Your task to perform on an android device: View the shopping cart on ebay. Search for "bose quietcomfort 35" on ebay, select the first entry, add it to the cart, then select checkout. Image 0: 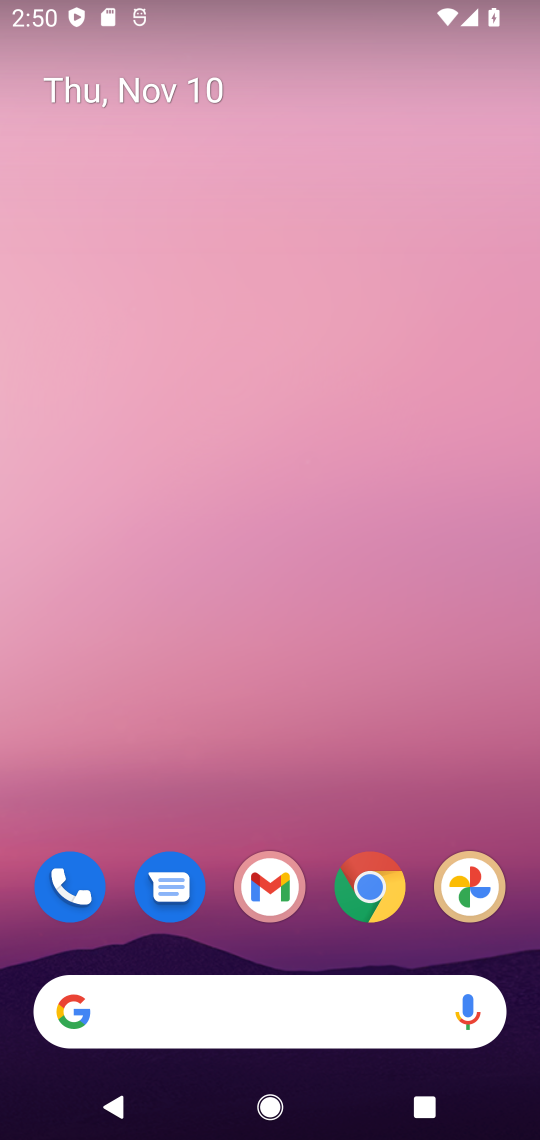
Step 0: drag from (329, 858) to (354, 39)
Your task to perform on an android device: View the shopping cart on ebay. Search for "bose quietcomfort 35" on ebay, select the first entry, add it to the cart, then select checkout. Image 1: 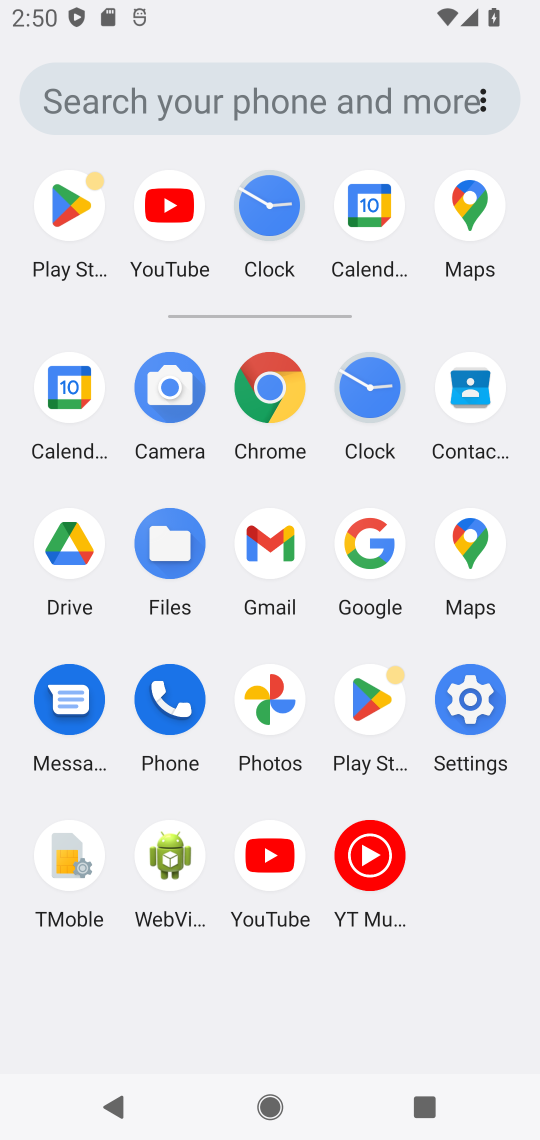
Step 1: click (275, 398)
Your task to perform on an android device: View the shopping cart on ebay. Search for "bose quietcomfort 35" on ebay, select the first entry, add it to the cart, then select checkout. Image 2: 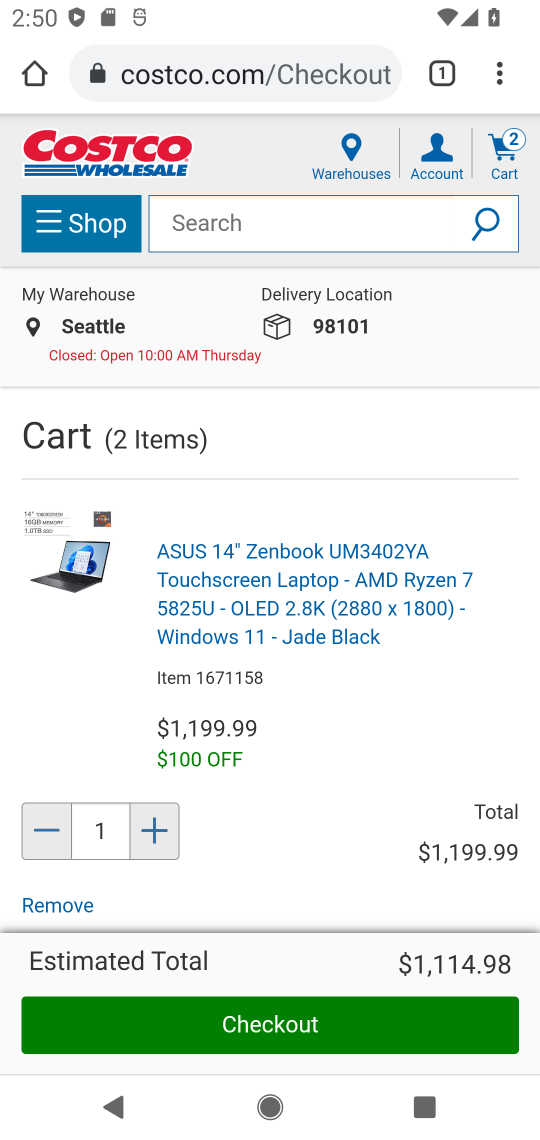
Step 2: click (316, 68)
Your task to perform on an android device: View the shopping cart on ebay. Search for "bose quietcomfort 35" on ebay, select the first entry, add it to the cart, then select checkout. Image 3: 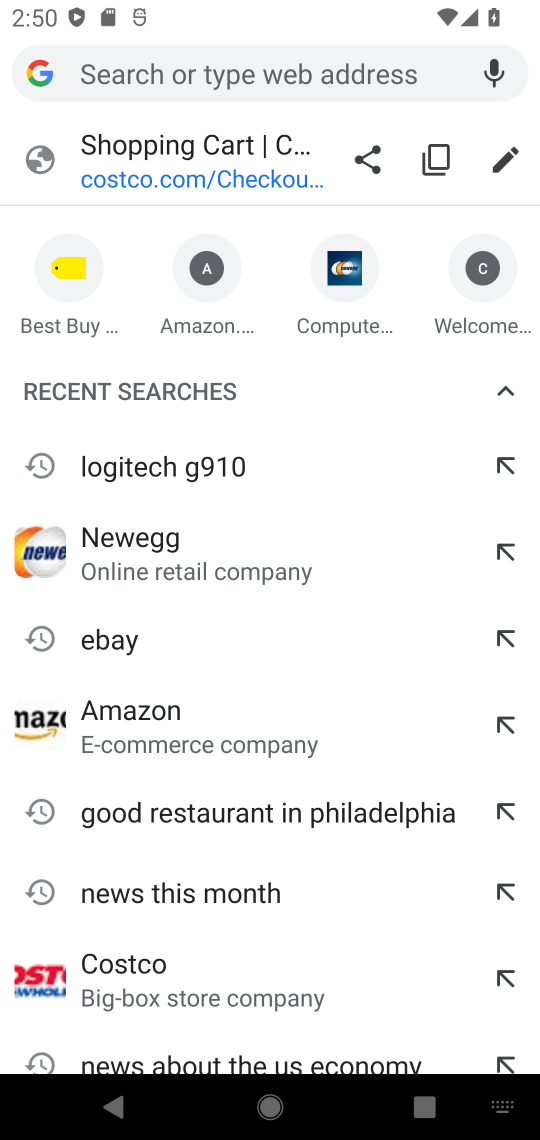
Step 3: type "ebay.com"
Your task to perform on an android device: View the shopping cart on ebay. Search for "bose quietcomfort 35" on ebay, select the first entry, add it to the cart, then select checkout. Image 4: 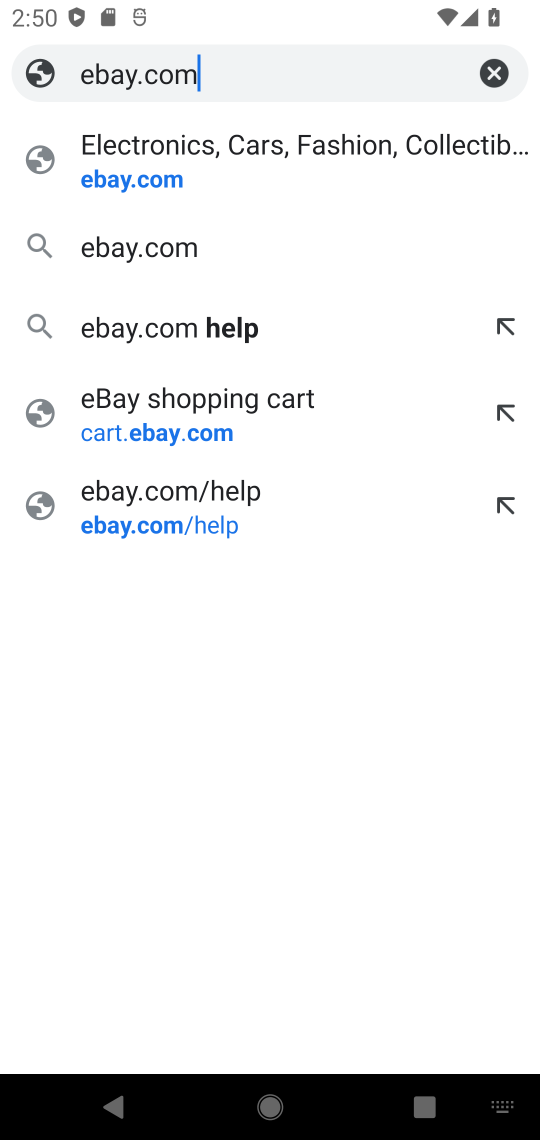
Step 4: press enter
Your task to perform on an android device: View the shopping cart on ebay. Search for "bose quietcomfort 35" on ebay, select the first entry, add it to the cart, then select checkout. Image 5: 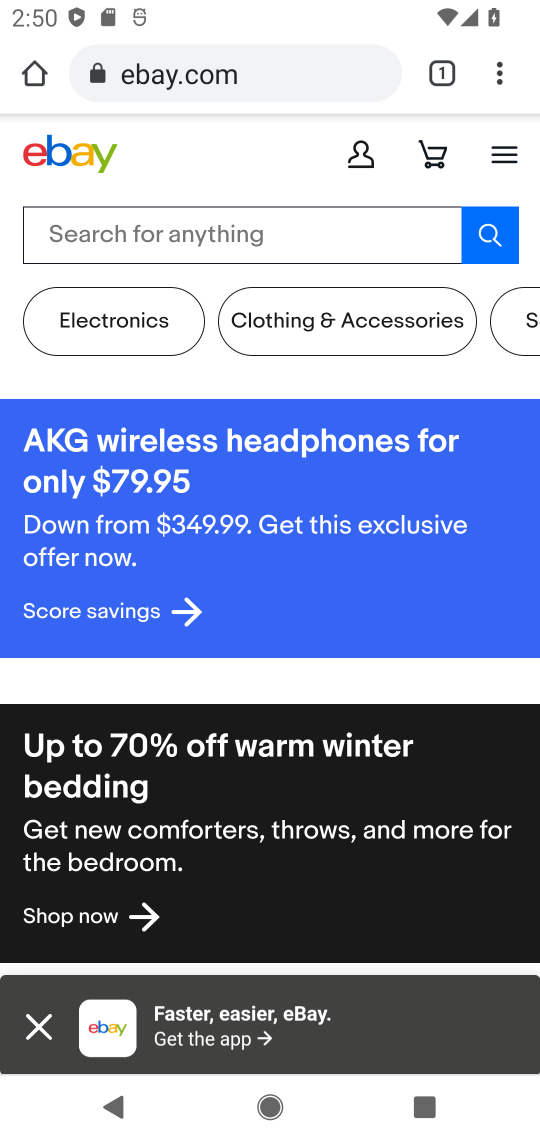
Step 5: click (423, 149)
Your task to perform on an android device: View the shopping cart on ebay. Search for "bose quietcomfort 35" on ebay, select the first entry, add it to the cart, then select checkout. Image 6: 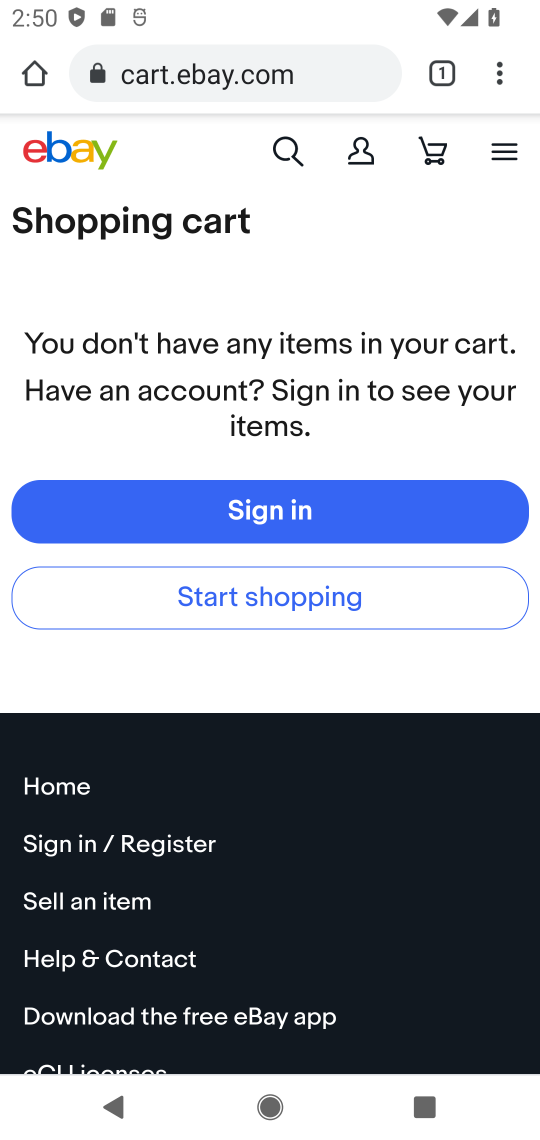
Step 6: click (270, 131)
Your task to perform on an android device: View the shopping cart on ebay. Search for "bose quietcomfort 35" on ebay, select the first entry, add it to the cart, then select checkout. Image 7: 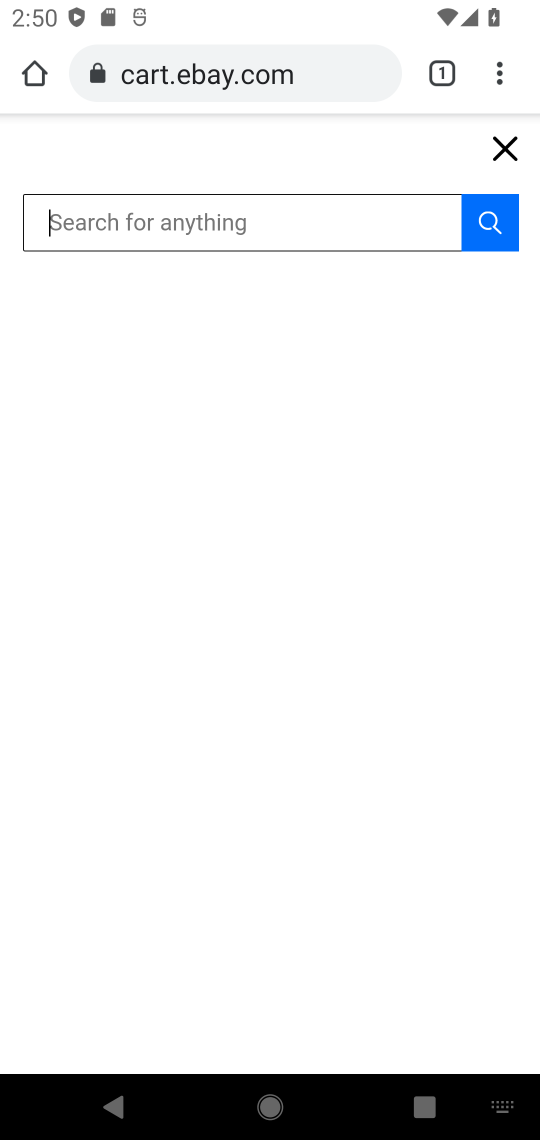
Step 7: type "bose quietcomfort 35"
Your task to perform on an android device: View the shopping cart on ebay. Search for "bose quietcomfort 35" on ebay, select the first entry, add it to the cart, then select checkout. Image 8: 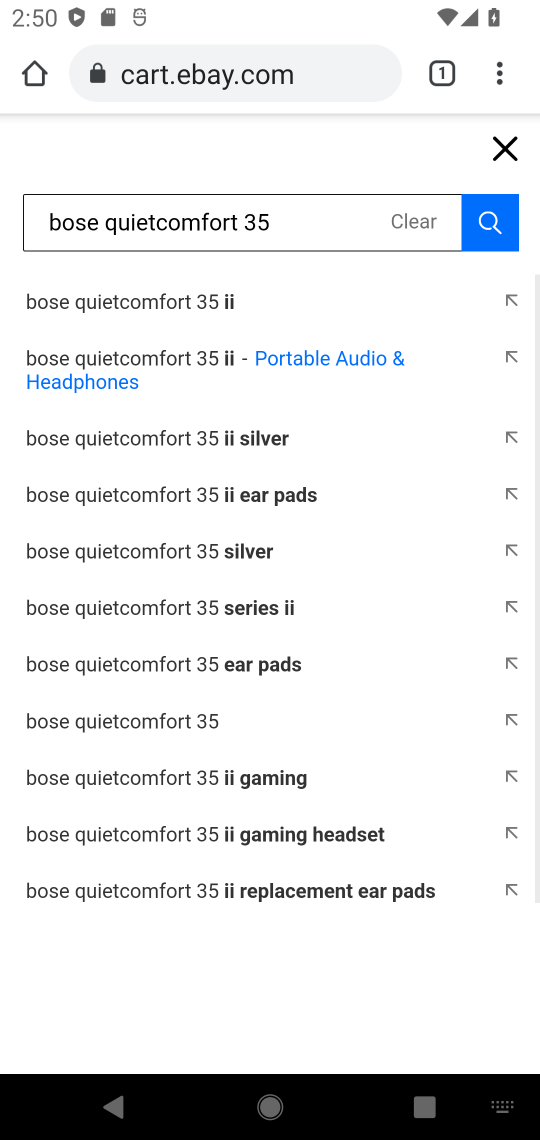
Step 8: press enter
Your task to perform on an android device: View the shopping cart on ebay. Search for "bose quietcomfort 35" on ebay, select the first entry, add it to the cart, then select checkout. Image 9: 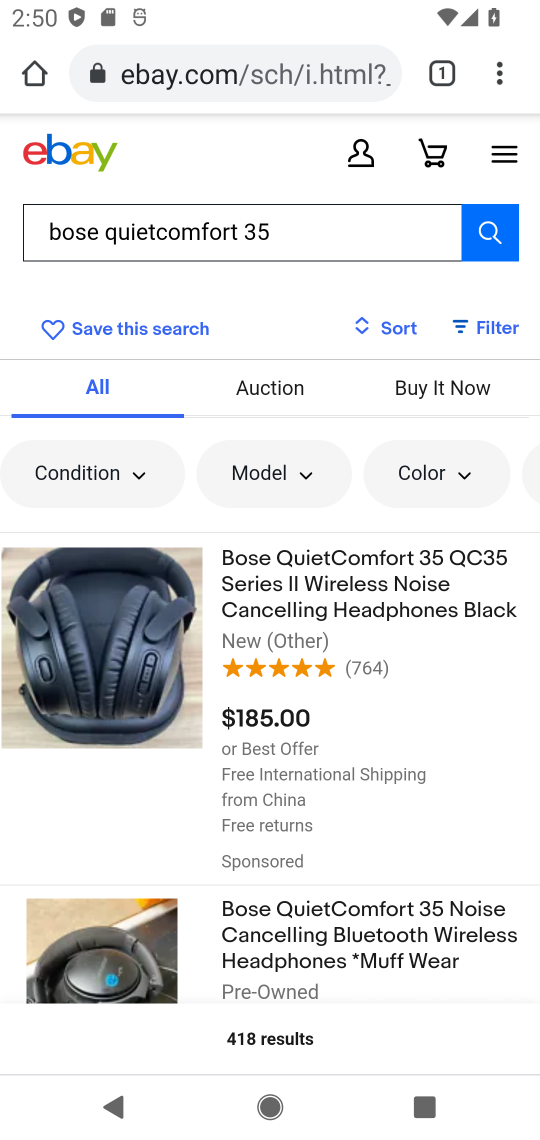
Step 9: click (262, 603)
Your task to perform on an android device: View the shopping cart on ebay. Search for "bose quietcomfort 35" on ebay, select the first entry, add it to the cart, then select checkout. Image 10: 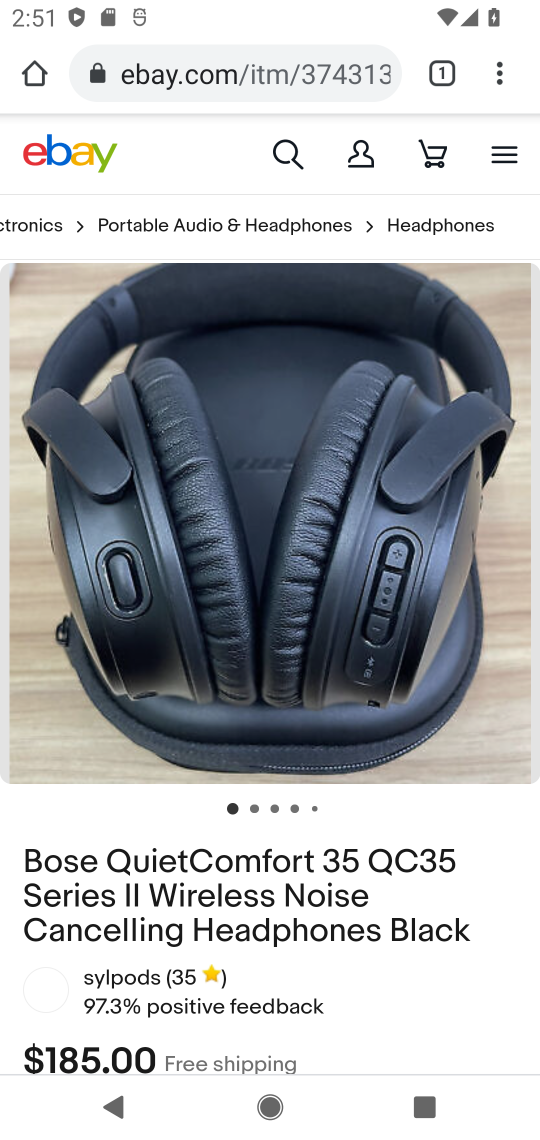
Step 10: drag from (307, 962) to (249, 161)
Your task to perform on an android device: View the shopping cart on ebay. Search for "bose quietcomfort 35" on ebay, select the first entry, add it to the cart, then select checkout. Image 11: 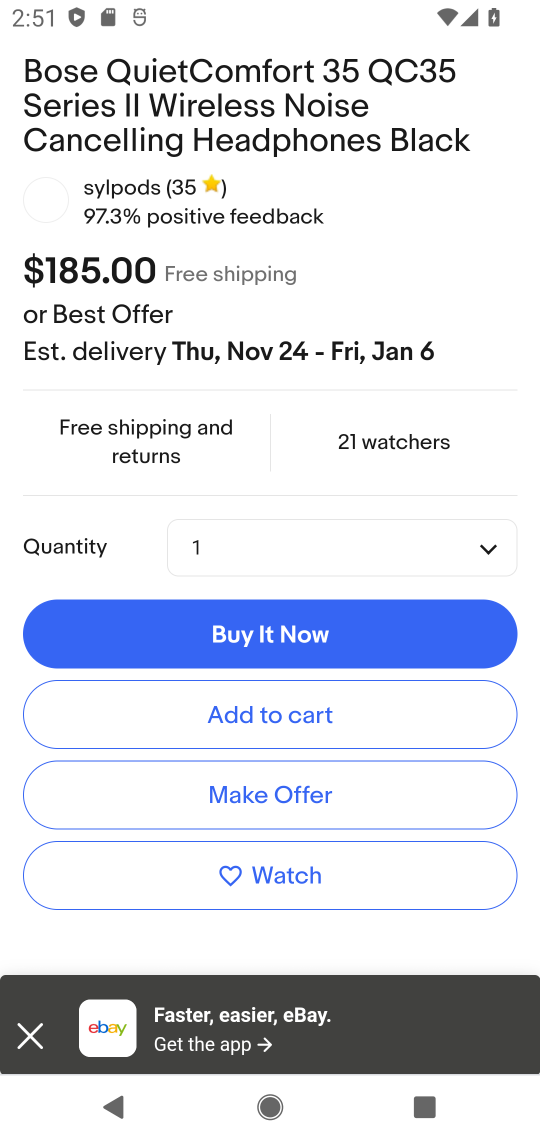
Step 11: click (229, 717)
Your task to perform on an android device: View the shopping cart on ebay. Search for "bose quietcomfort 35" on ebay, select the first entry, add it to the cart, then select checkout. Image 12: 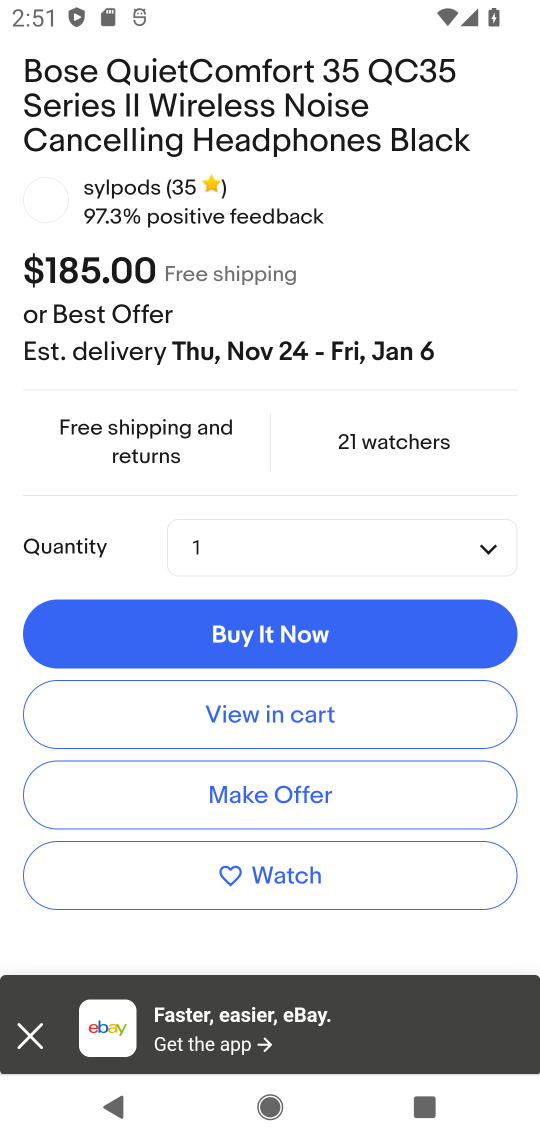
Step 12: click (229, 717)
Your task to perform on an android device: View the shopping cart on ebay. Search for "bose quietcomfort 35" on ebay, select the first entry, add it to the cart, then select checkout. Image 13: 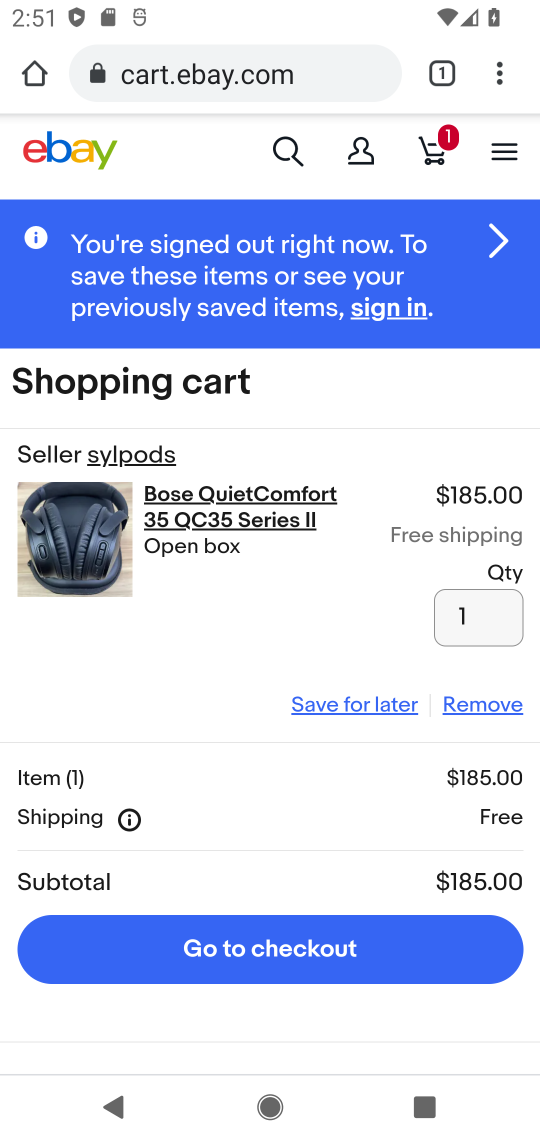
Step 13: click (309, 955)
Your task to perform on an android device: View the shopping cart on ebay. Search for "bose quietcomfort 35" on ebay, select the first entry, add it to the cart, then select checkout. Image 14: 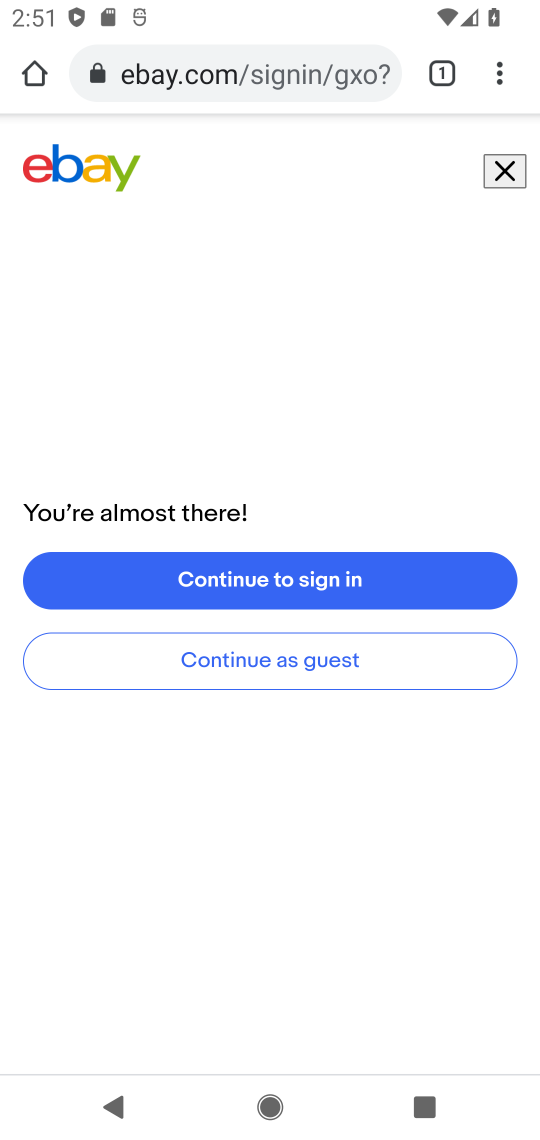
Step 14: task complete